Your task to perform on an android device: Open the phone app and click the voicemail tab. Image 0: 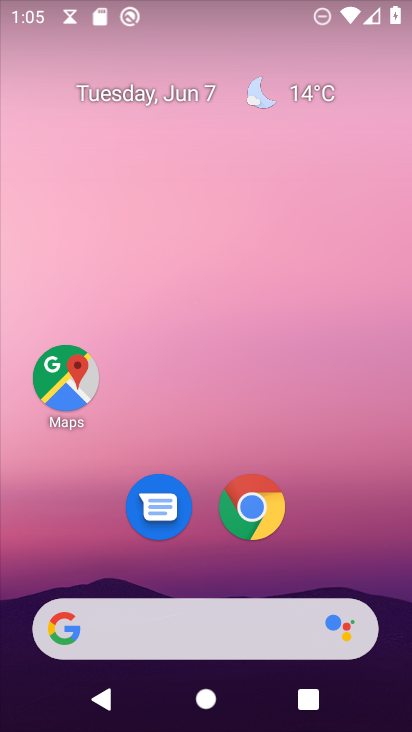
Step 0: drag from (333, 518) to (324, 30)
Your task to perform on an android device: Open the phone app and click the voicemail tab. Image 1: 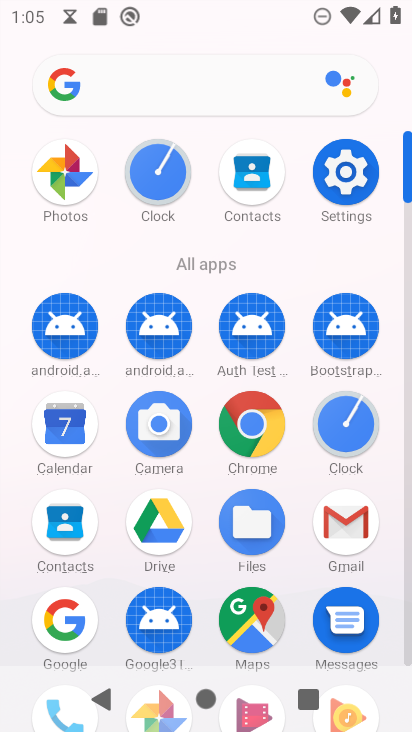
Step 1: drag from (111, 590) to (101, 187)
Your task to perform on an android device: Open the phone app and click the voicemail tab. Image 2: 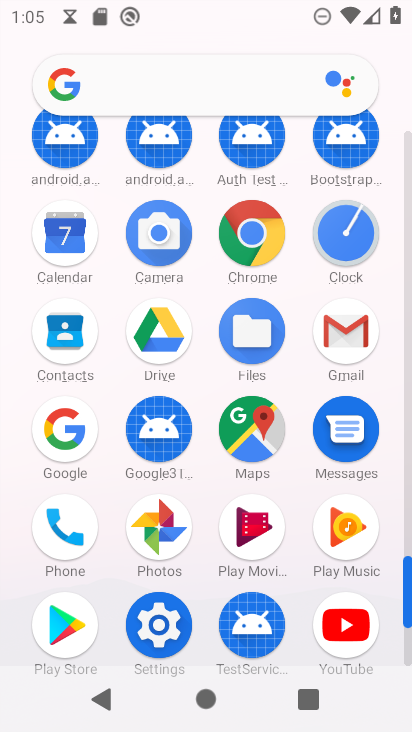
Step 2: click (56, 525)
Your task to perform on an android device: Open the phone app and click the voicemail tab. Image 3: 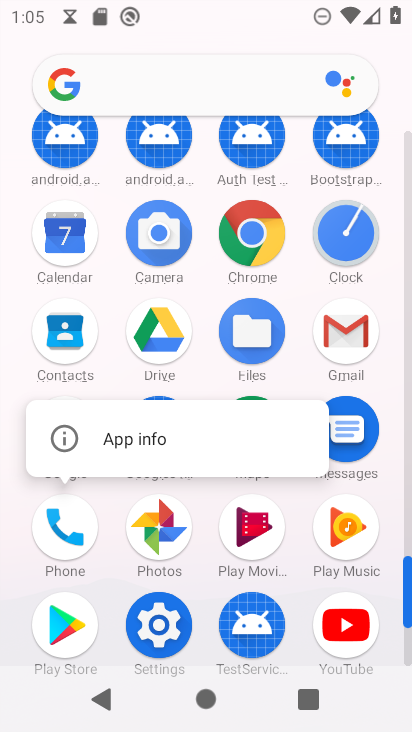
Step 3: click (56, 525)
Your task to perform on an android device: Open the phone app and click the voicemail tab. Image 4: 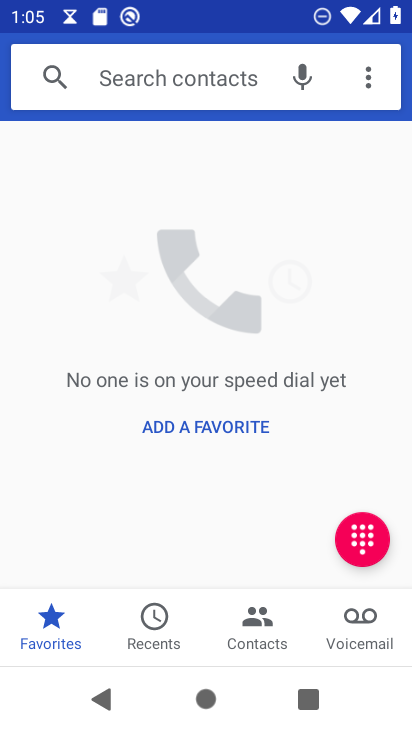
Step 4: click (349, 641)
Your task to perform on an android device: Open the phone app and click the voicemail tab. Image 5: 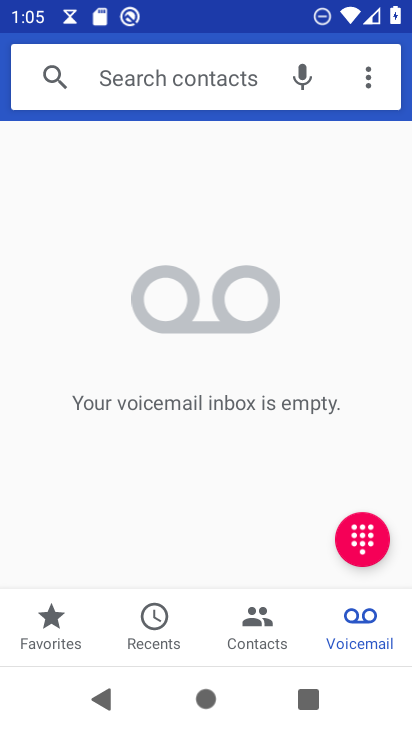
Step 5: task complete